Your task to perform on an android device: Open display settings Image 0: 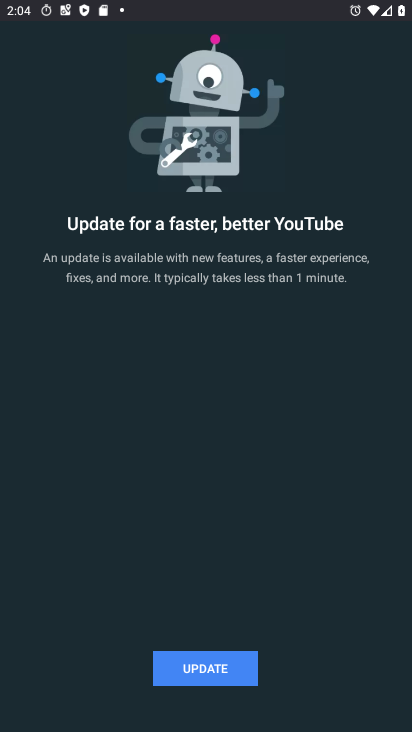
Step 0: press back button
Your task to perform on an android device: Open display settings Image 1: 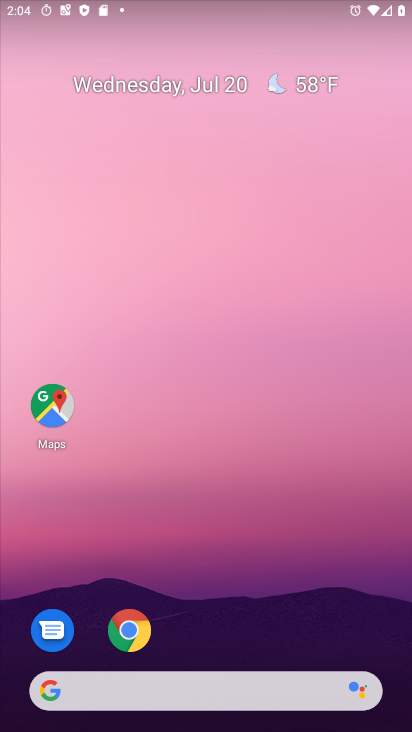
Step 1: drag from (229, 686) to (171, 165)
Your task to perform on an android device: Open display settings Image 2: 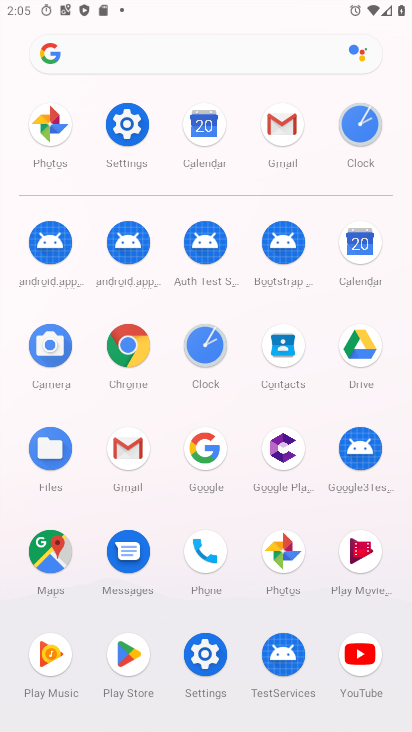
Step 2: click (128, 124)
Your task to perform on an android device: Open display settings Image 3: 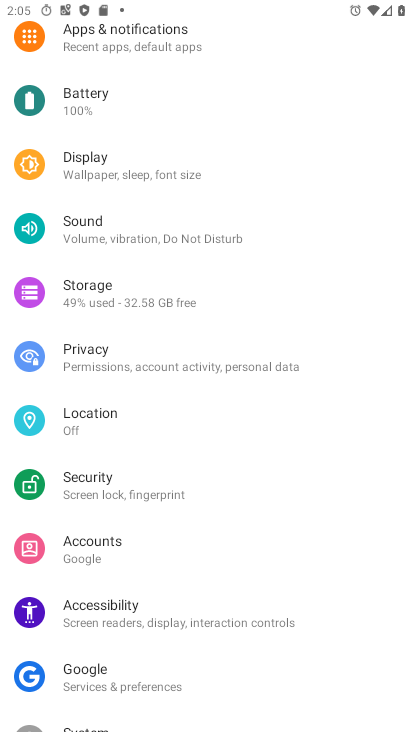
Step 3: click (112, 162)
Your task to perform on an android device: Open display settings Image 4: 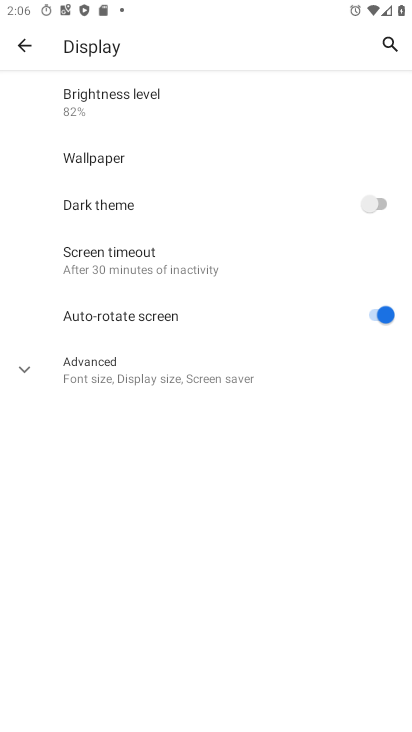
Step 4: task complete